Your task to perform on an android device: open a bookmark in the chrome app Image 0: 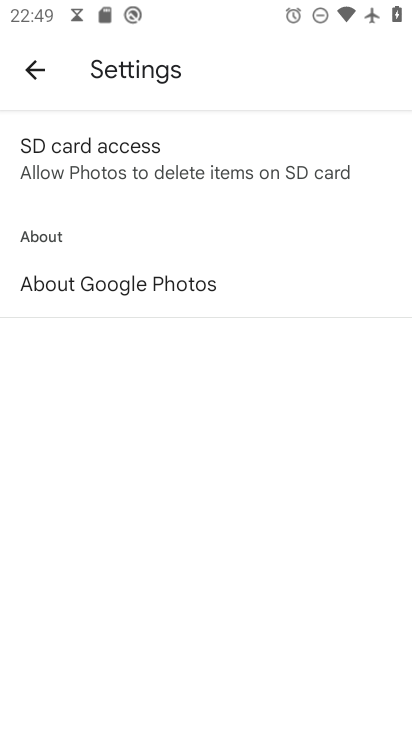
Step 0: press home button
Your task to perform on an android device: open a bookmark in the chrome app Image 1: 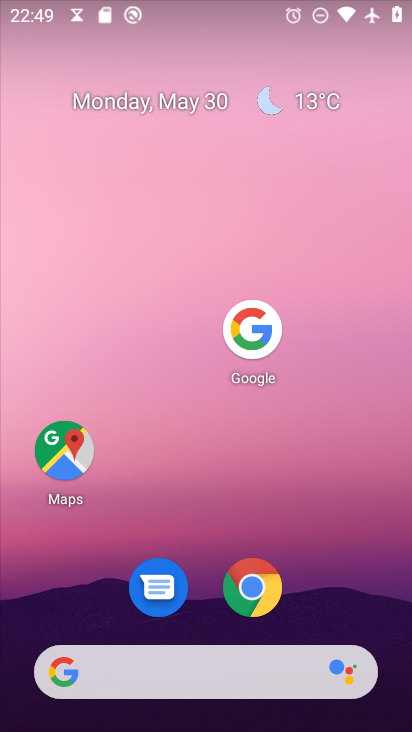
Step 1: click (248, 592)
Your task to perform on an android device: open a bookmark in the chrome app Image 2: 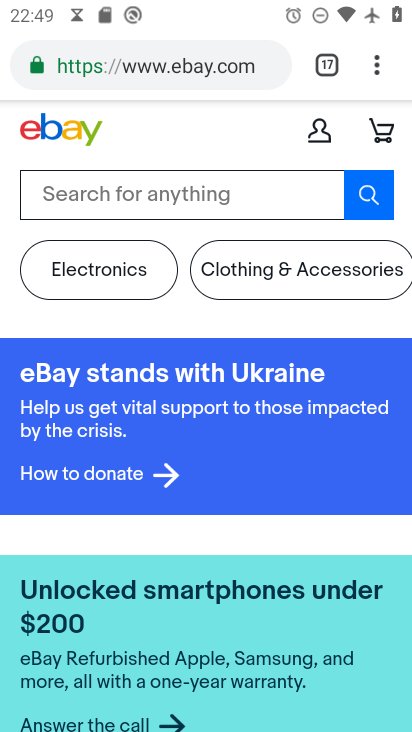
Step 2: task complete